Your task to perform on an android device: open app "Pandora - Music & Podcasts" Image 0: 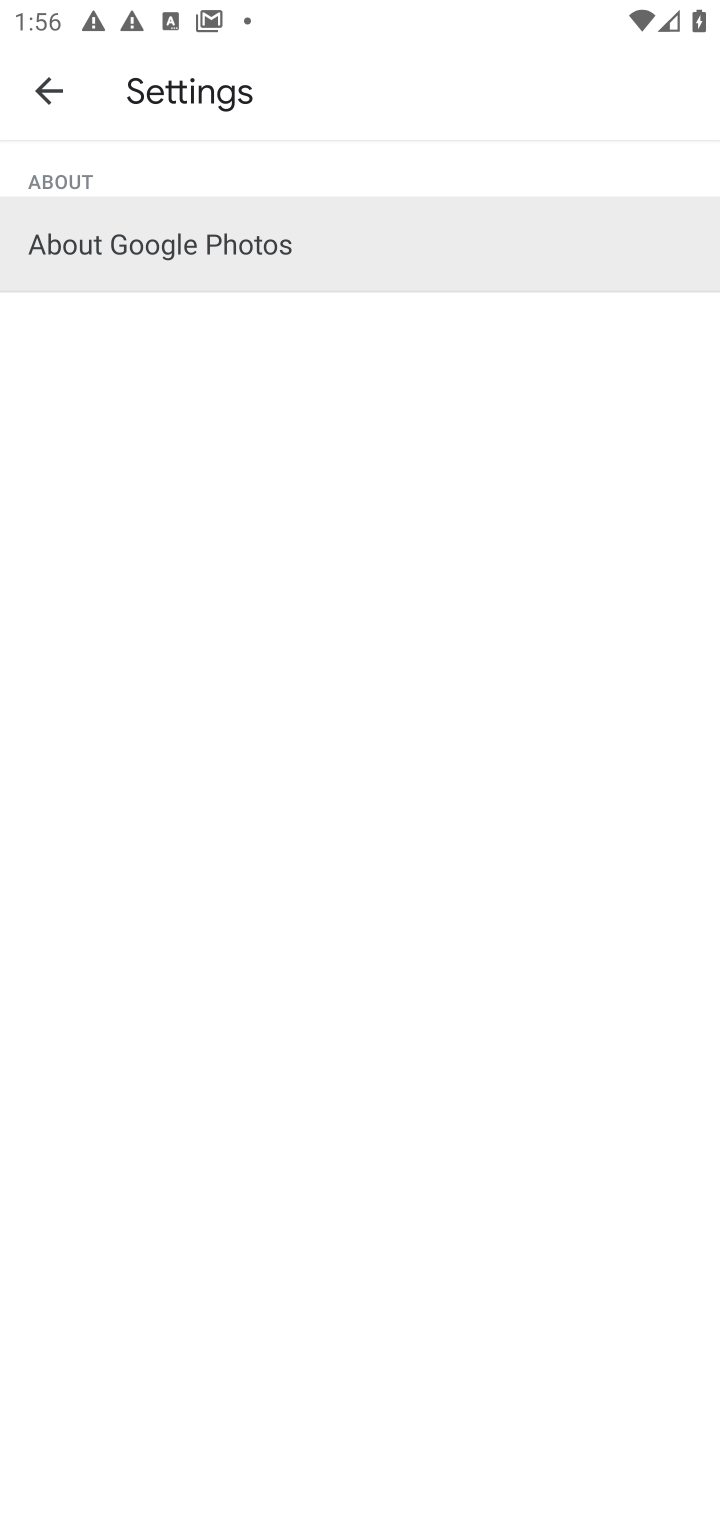
Step 0: press home button
Your task to perform on an android device: open app "Pandora - Music & Podcasts" Image 1: 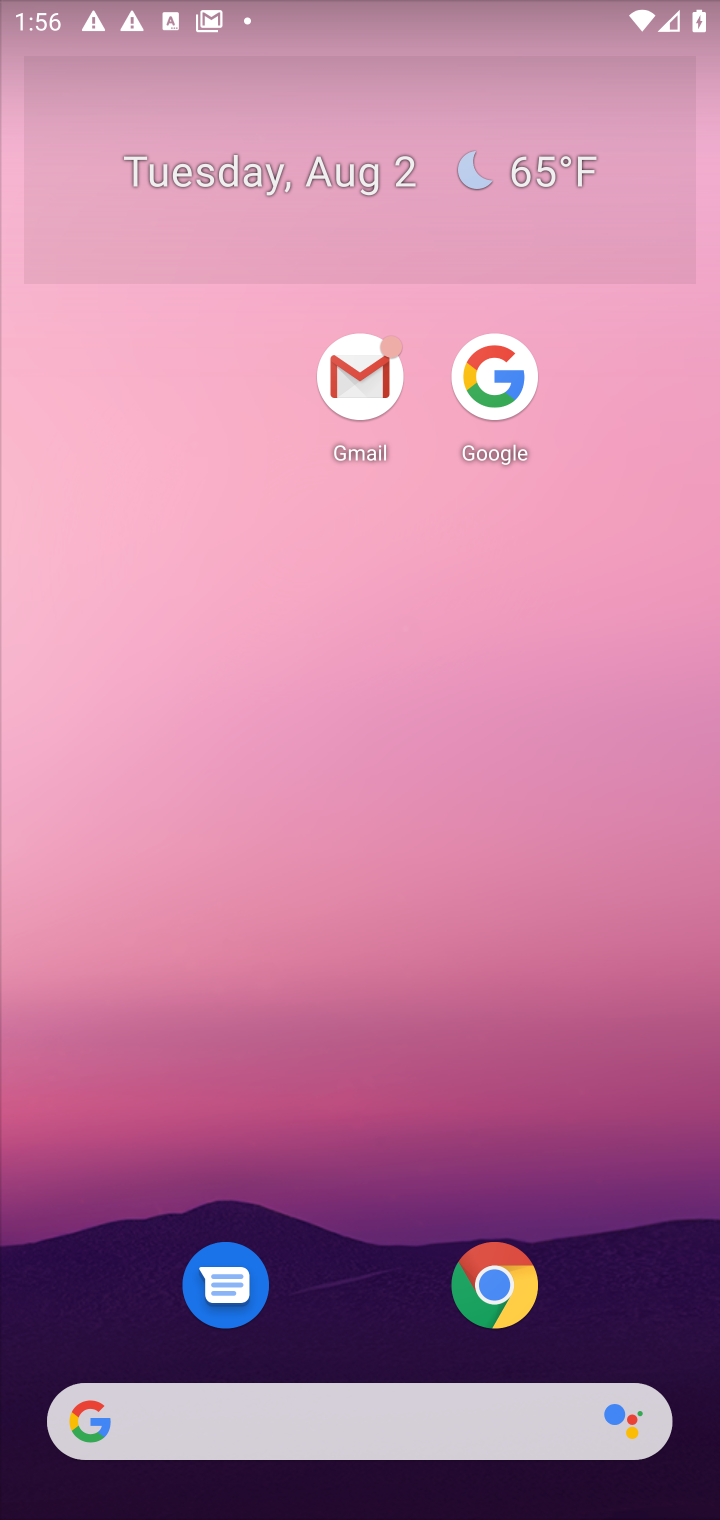
Step 1: drag from (632, 1271) to (429, 231)
Your task to perform on an android device: open app "Pandora - Music & Podcasts" Image 2: 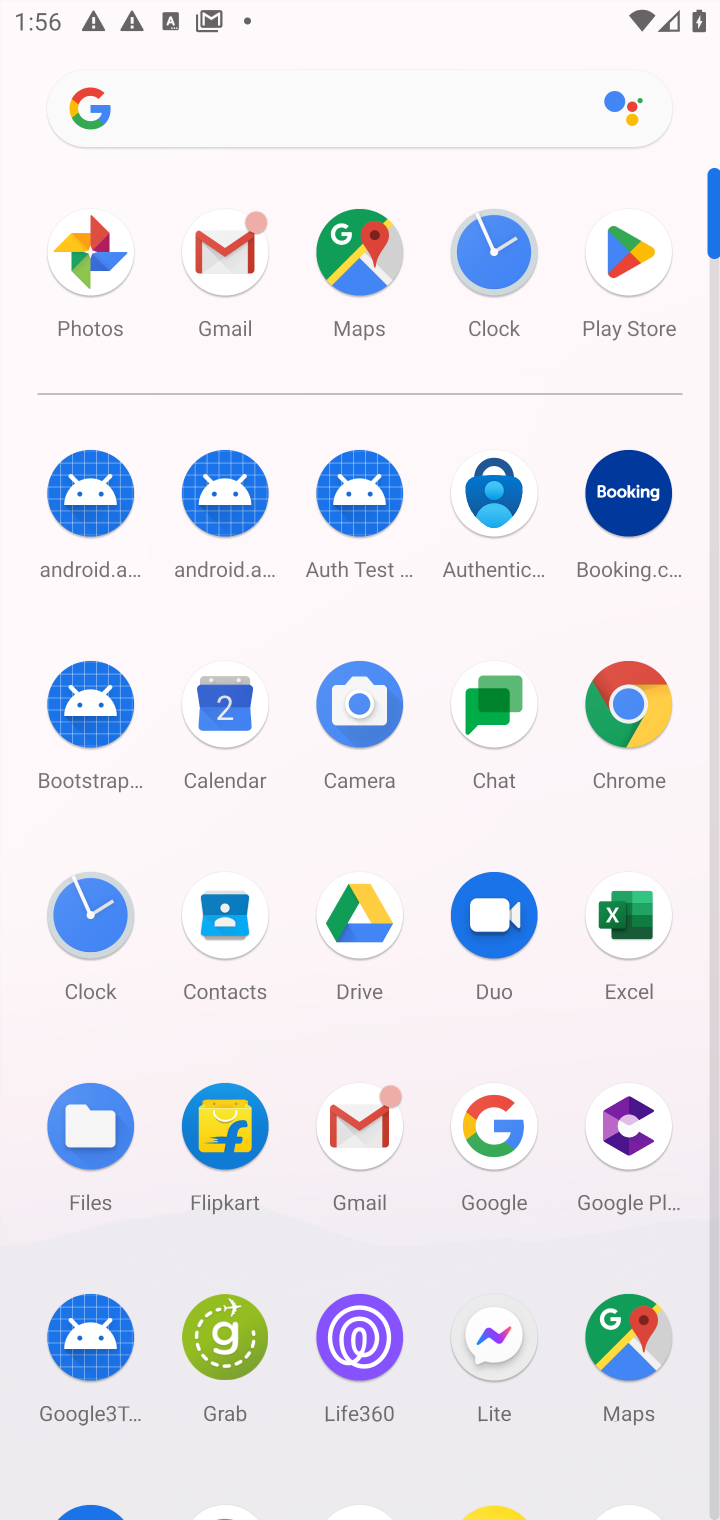
Step 2: drag from (401, 1230) to (388, 330)
Your task to perform on an android device: open app "Pandora - Music & Podcasts" Image 3: 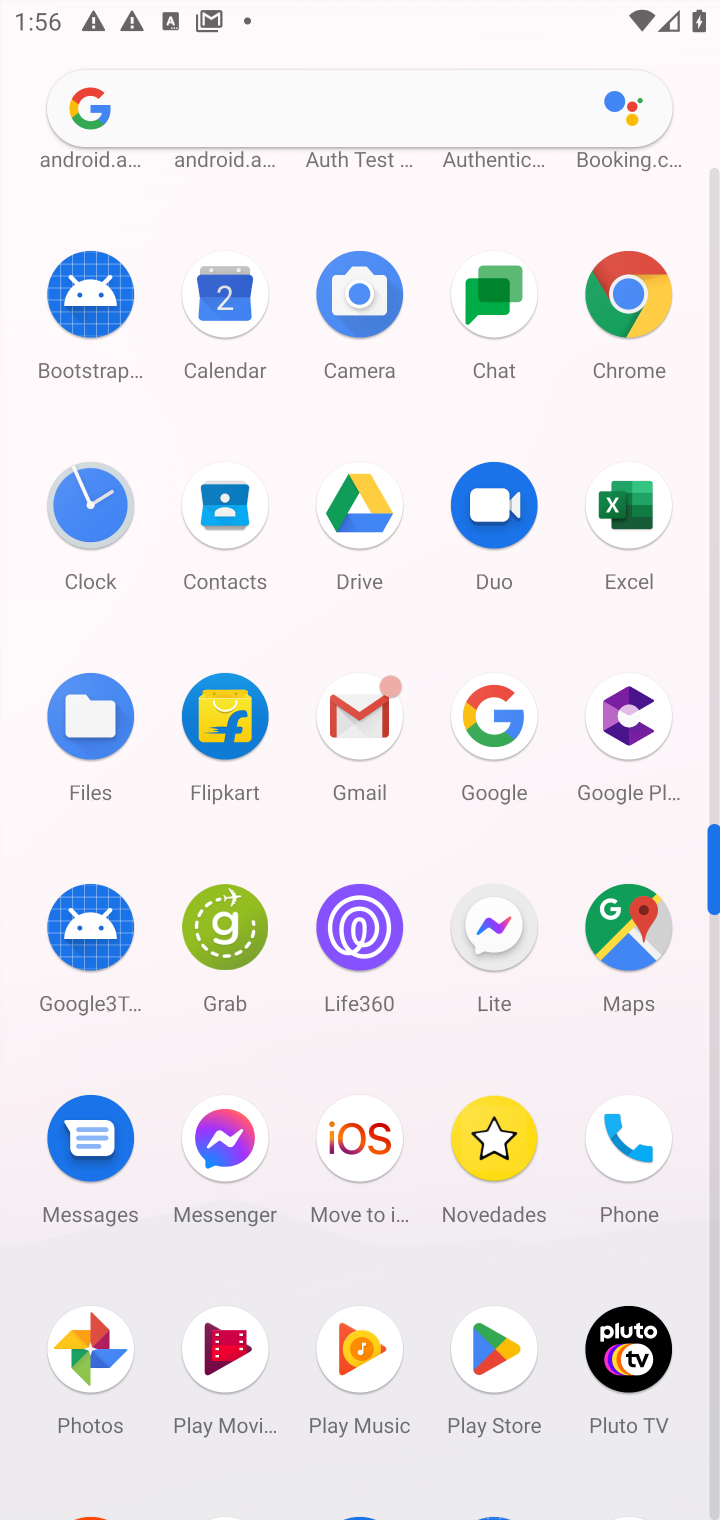
Step 3: click (502, 1370)
Your task to perform on an android device: open app "Pandora - Music & Podcasts" Image 4: 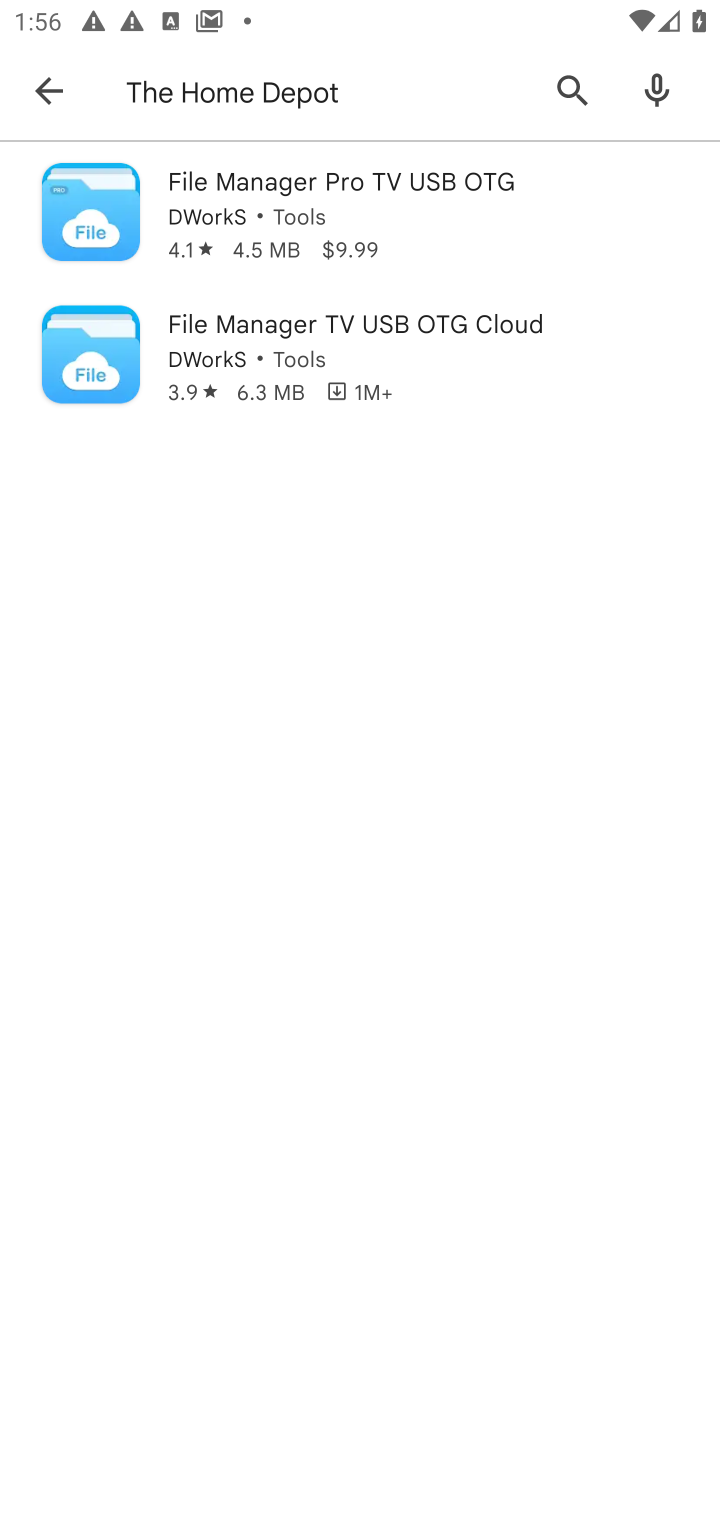
Step 4: click (354, 89)
Your task to perform on an android device: open app "Pandora - Music & Podcasts" Image 5: 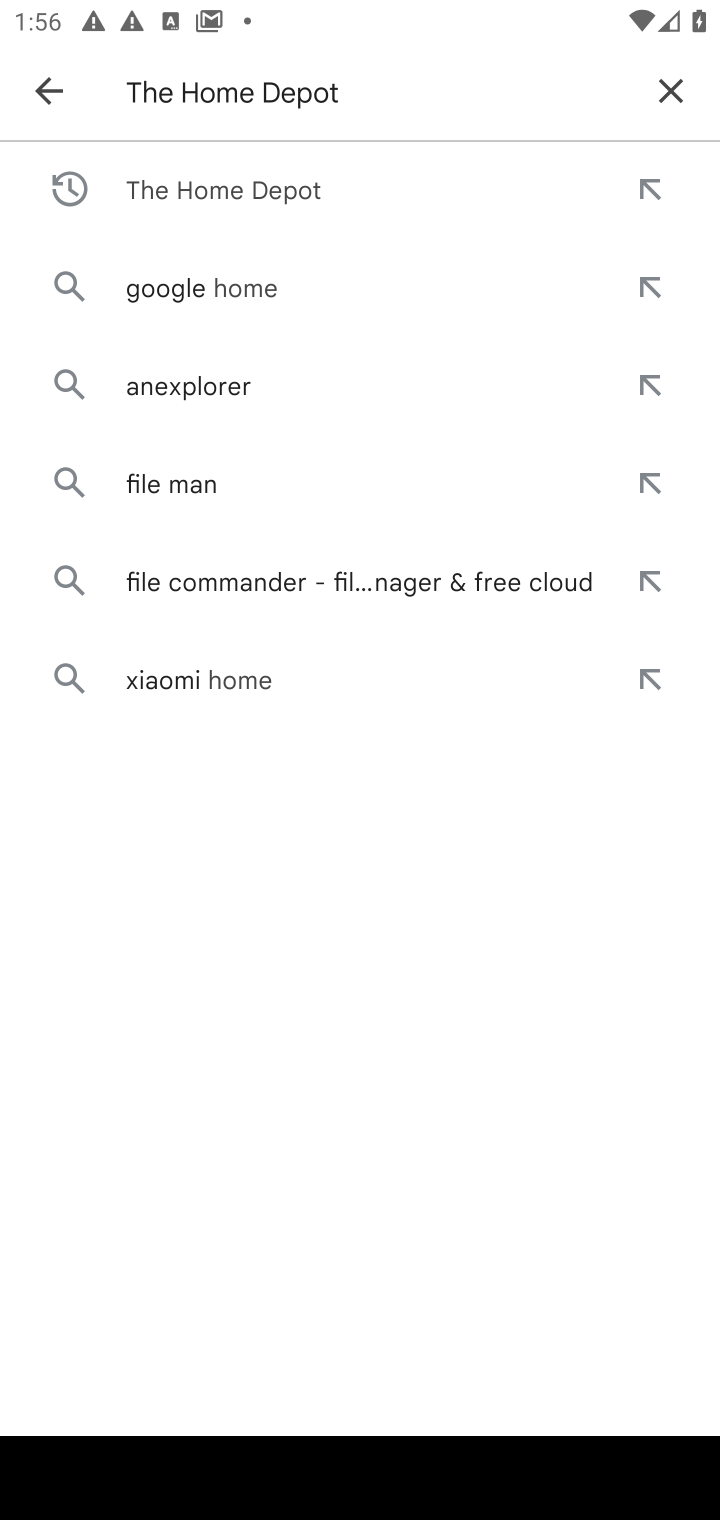
Step 5: click (683, 83)
Your task to perform on an android device: open app "Pandora - Music & Podcasts" Image 6: 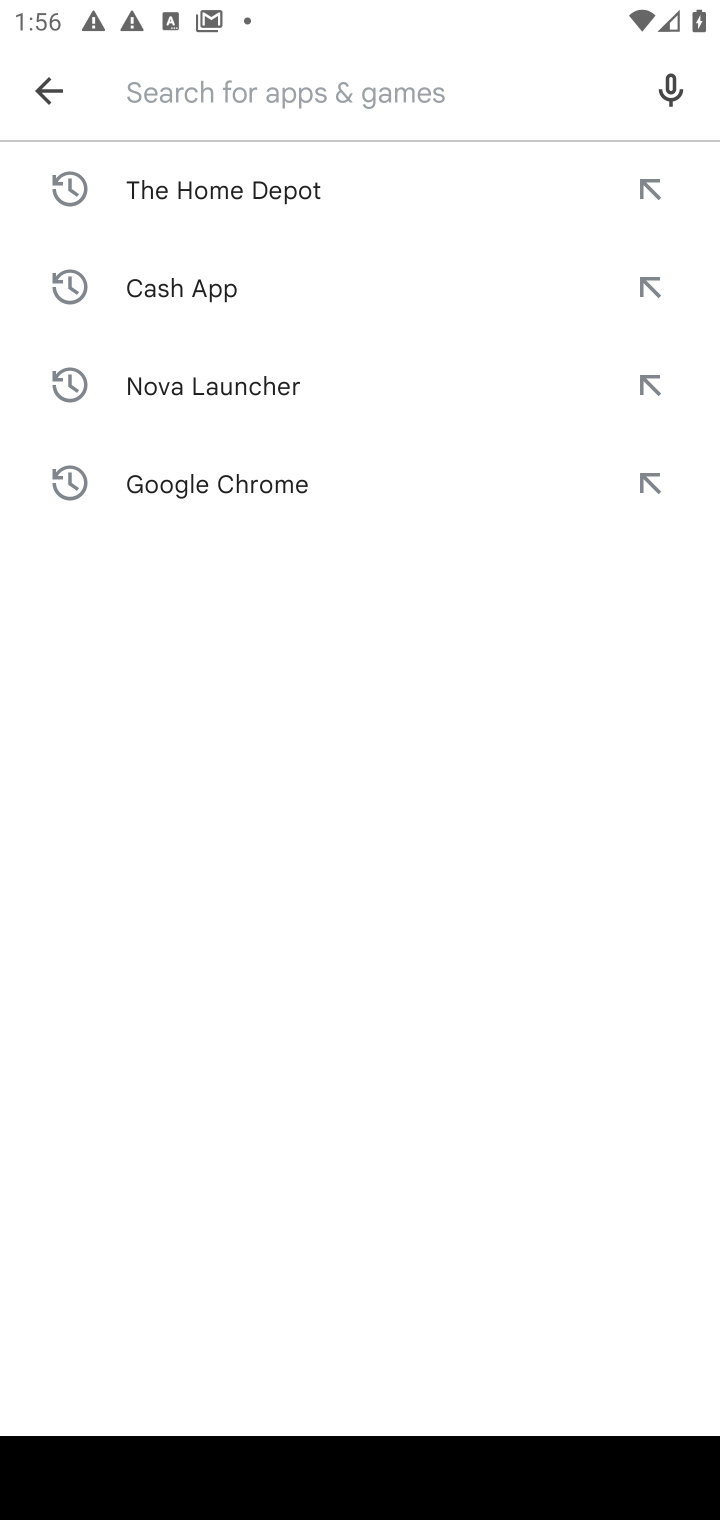
Step 6: type "Pandora - Music & Podcasts"
Your task to perform on an android device: open app "Pandora - Music & Podcasts" Image 7: 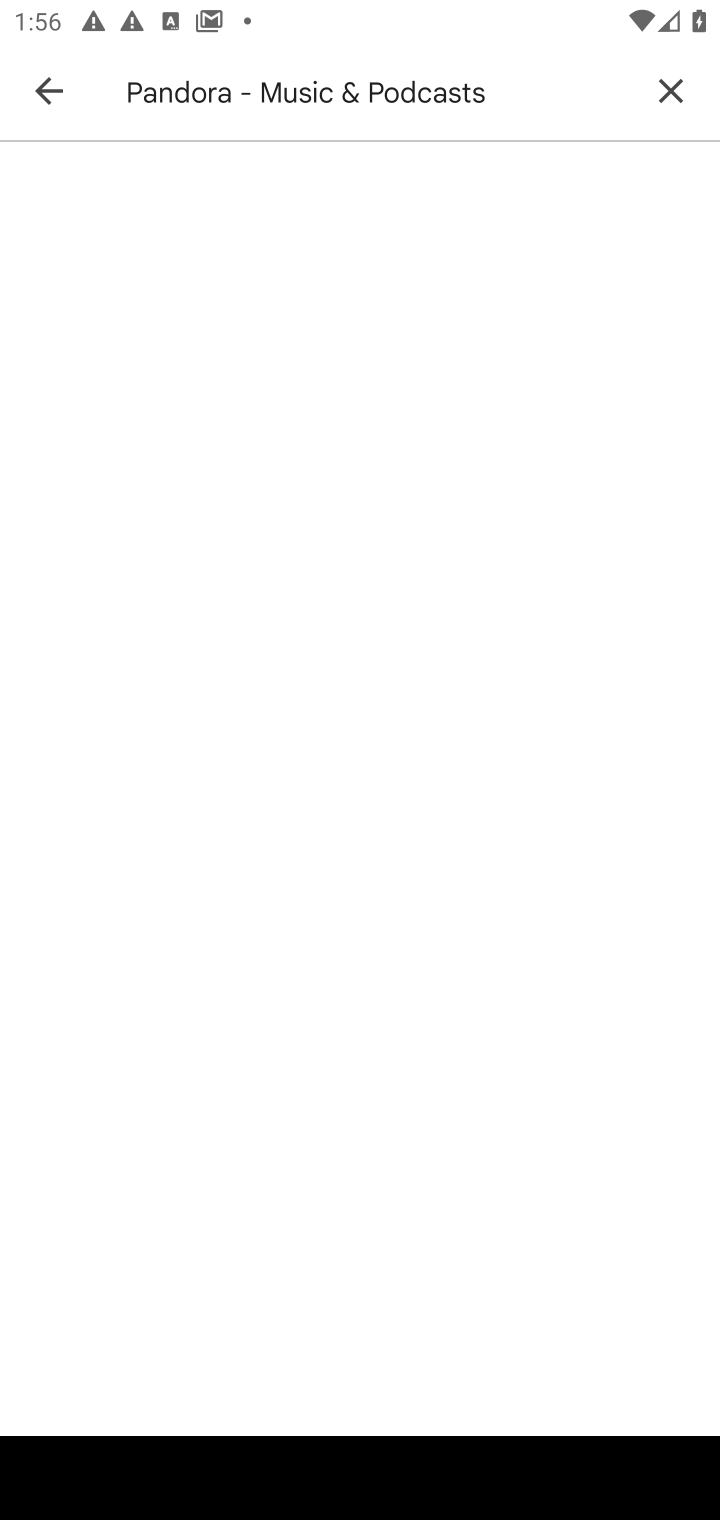
Step 7: press enter
Your task to perform on an android device: open app "Pandora - Music & Podcasts" Image 8: 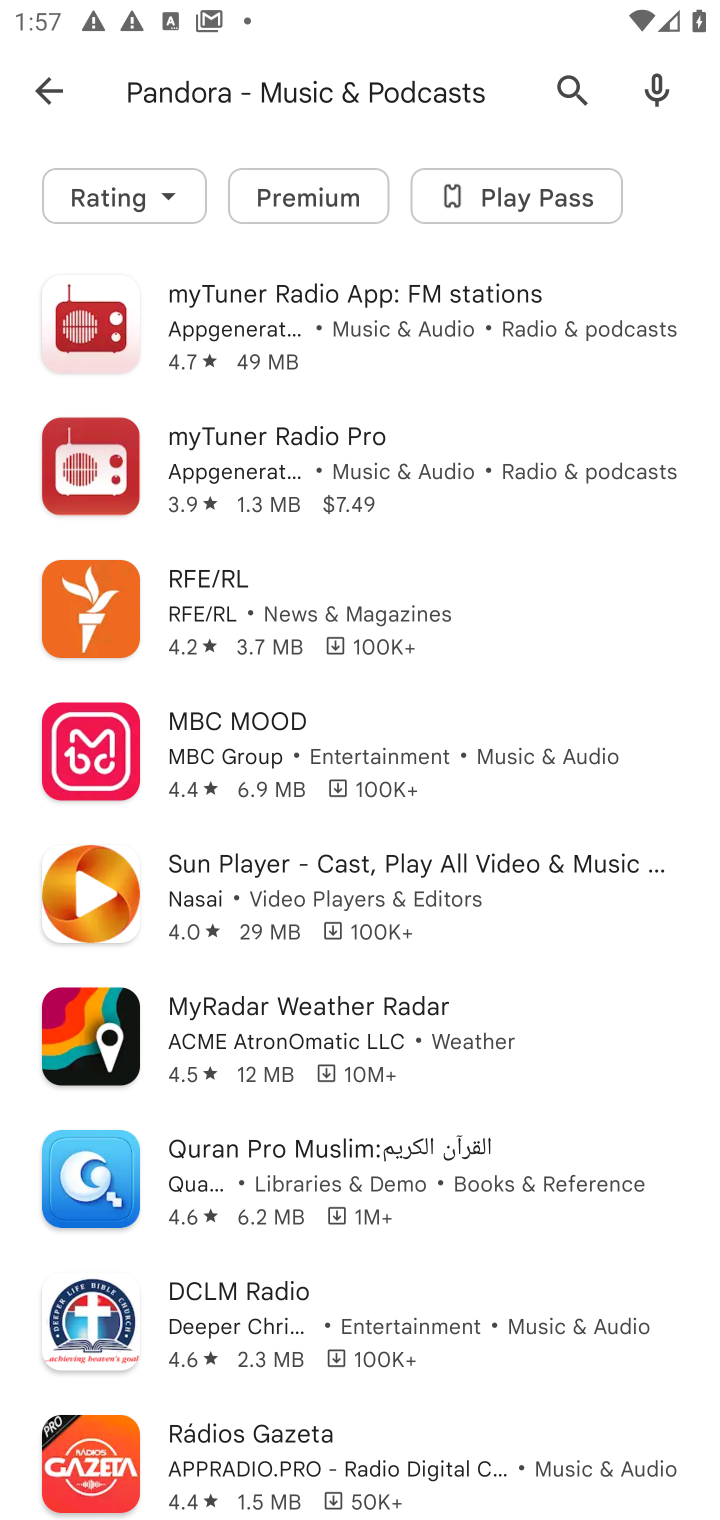
Step 8: task complete